Your task to perform on an android device: Is it going to rain this weekend? Image 0: 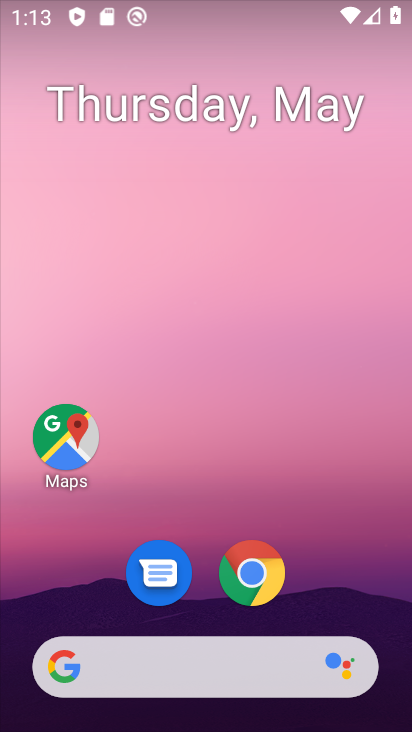
Step 0: drag from (391, 615) to (357, 311)
Your task to perform on an android device: Is it going to rain this weekend? Image 1: 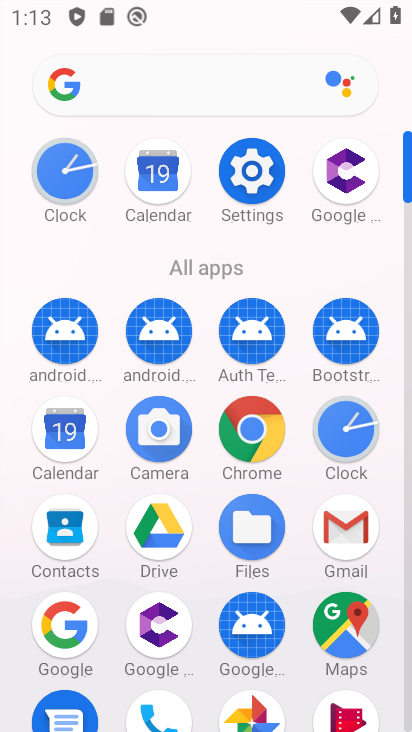
Step 1: click (78, 604)
Your task to perform on an android device: Is it going to rain this weekend? Image 2: 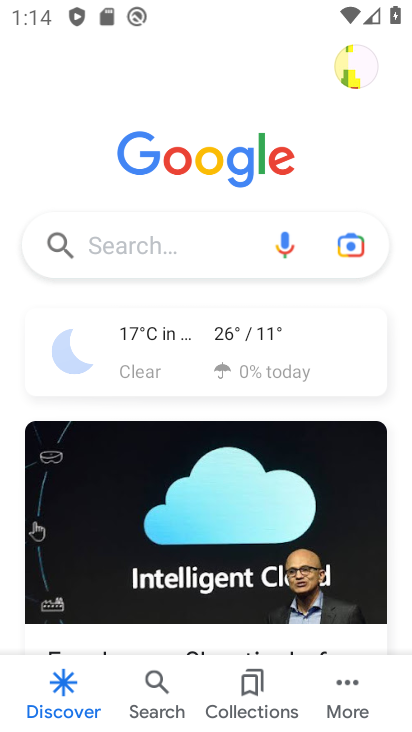
Step 2: click (251, 330)
Your task to perform on an android device: Is it going to rain this weekend? Image 3: 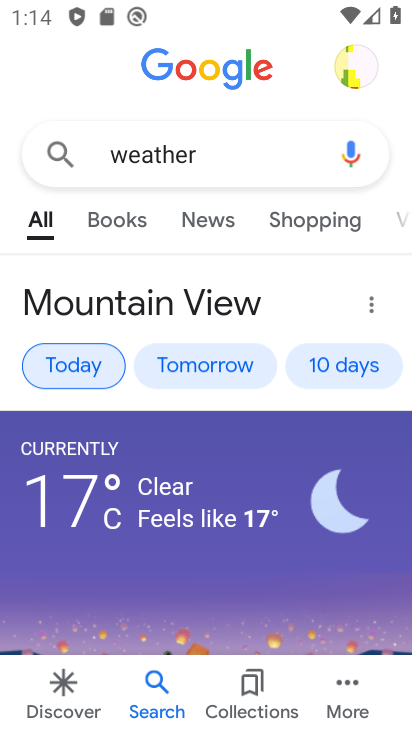
Step 3: click (328, 361)
Your task to perform on an android device: Is it going to rain this weekend? Image 4: 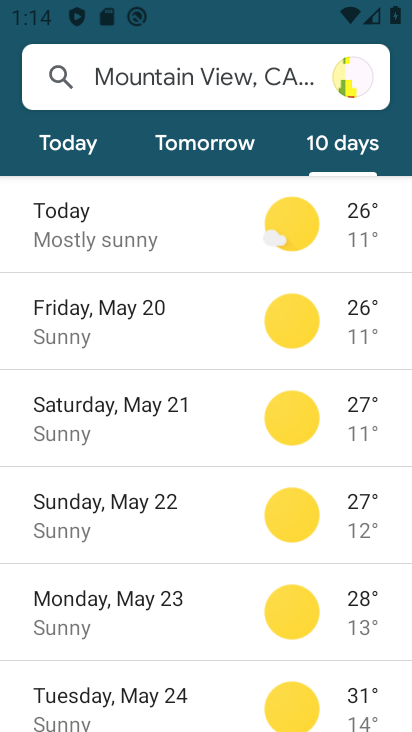
Step 4: task complete